Your task to perform on an android device: Show me popular games on the Play Store Image 0: 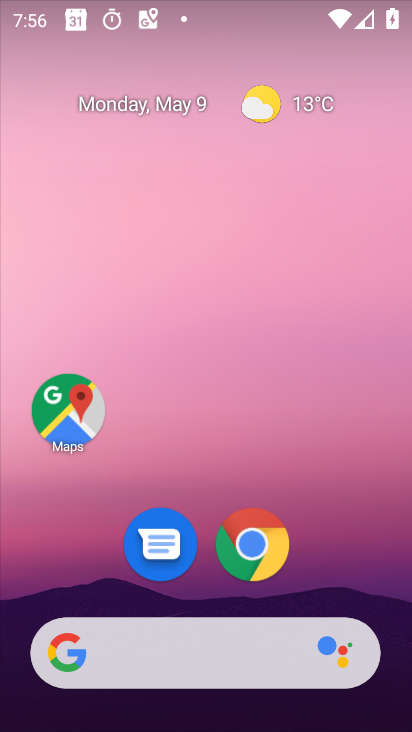
Step 0: click (334, 133)
Your task to perform on an android device: Show me popular games on the Play Store Image 1: 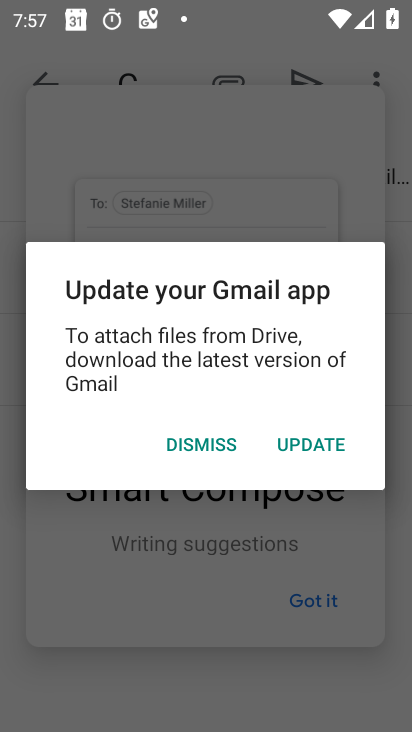
Step 1: press home button
Your task to perform on an android device: Show me popular games on the Play Store Image 2: 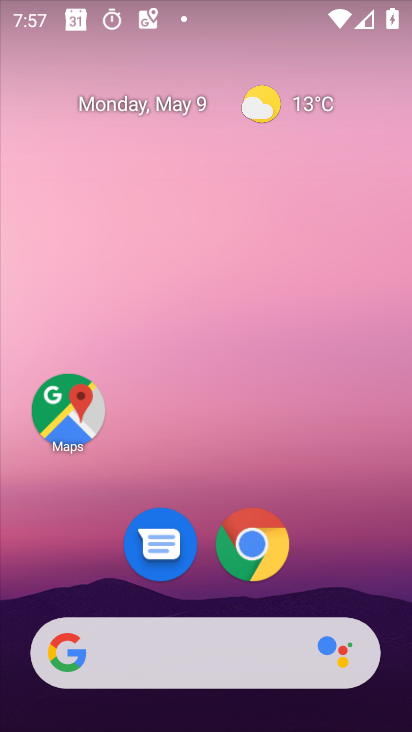
Step 2: drag from (337, 564) to (296, 63)
Your task to perform on an android device: Show me popular games on the Play Store Image 3: 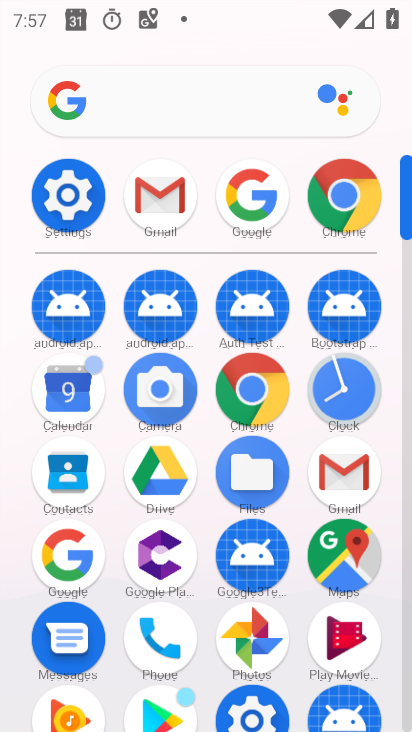
Step 3: click (164, 715)
Your task to perform on an android device: Show me popular games on the Play Store Image 4: 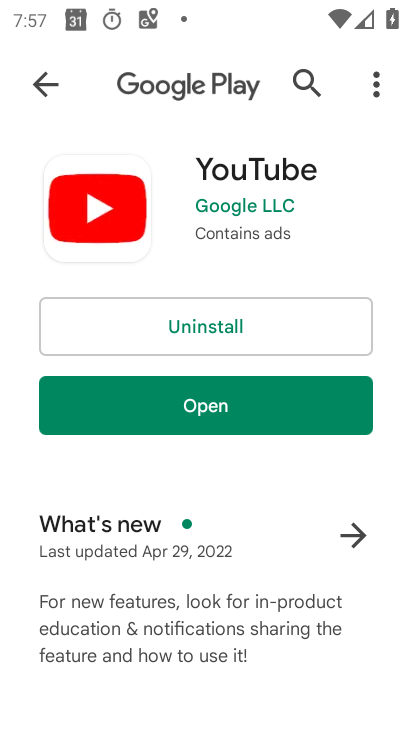
Step 4: click (236, 397)
Your task to perform on an android device: Show me popular games on the Play Store Image 5: 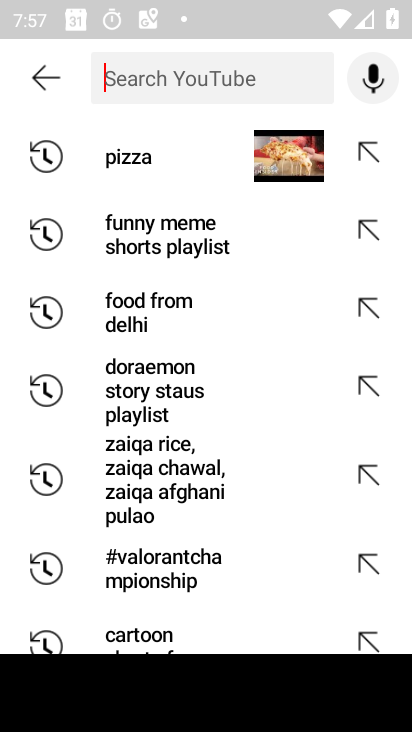
Step 5: press home button
Your task to perform on an android device: Show me popular games on the Play Store Image 6: 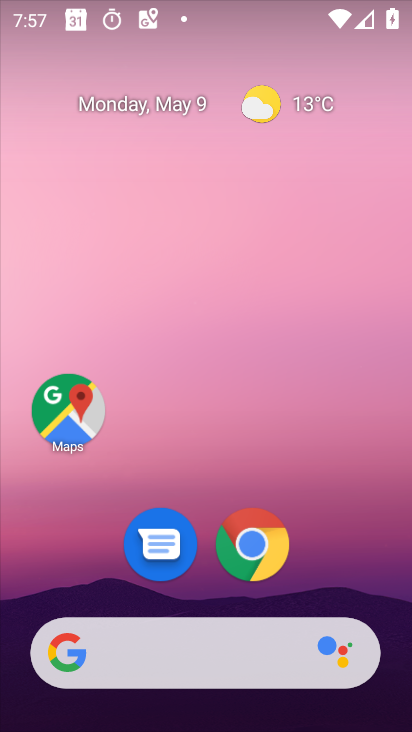
Step 6: drag from (360, 589) to (362, 49)
Your task to perform on an android device: Show me popular games on the Play Store Image 7: 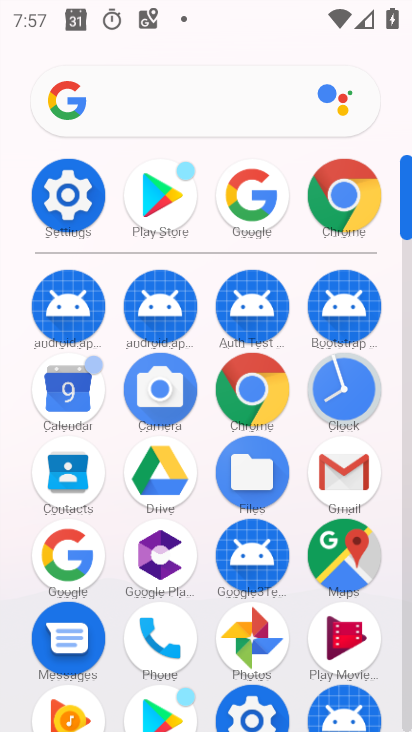
Step 7: click (170, 713)
Your task to perform on an android device: Show me popular games on the Play Store Image 8: 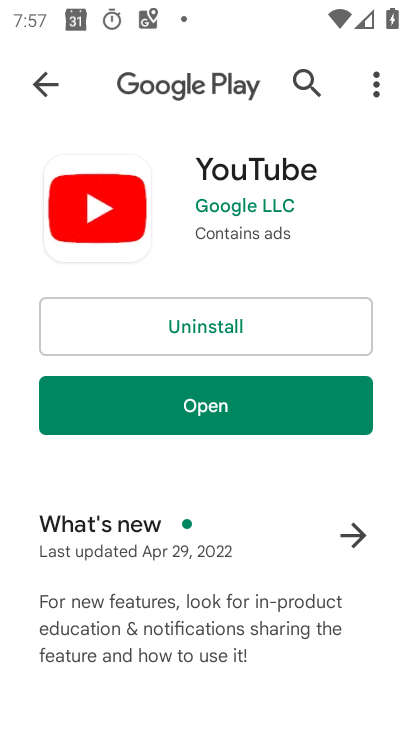
Step 8: click (59, 77)
Your task to perform on an android device: Show me popular games on the Play Store Image 9: 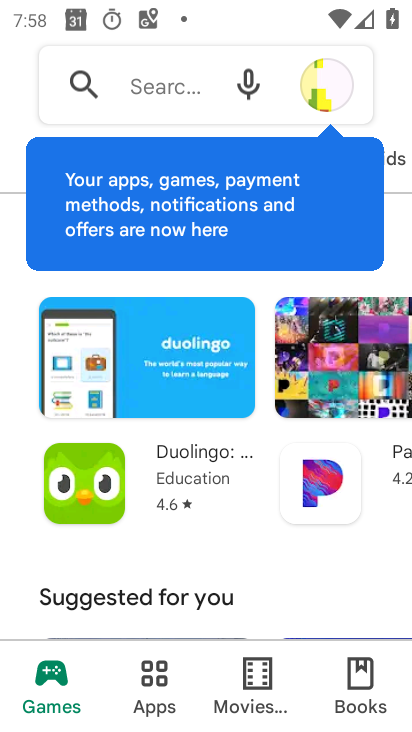
Step 9: task complete